Your task to perform on an android device: toggle show notifications on the lock screen Image 0: 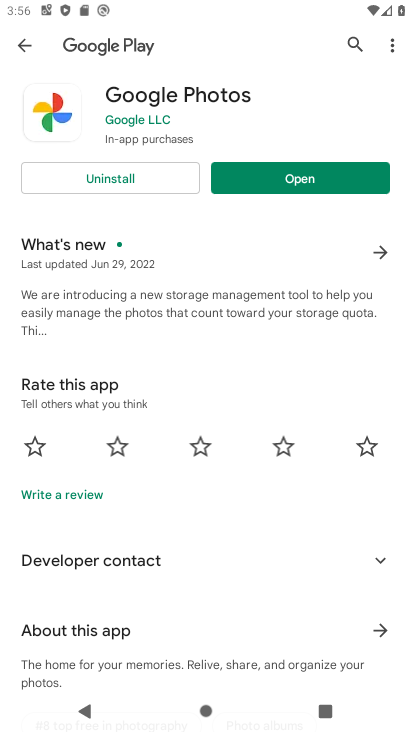
Step 0: press home button
Your task to perform on an android device: toggle show notifications on the lock screen Image 1: 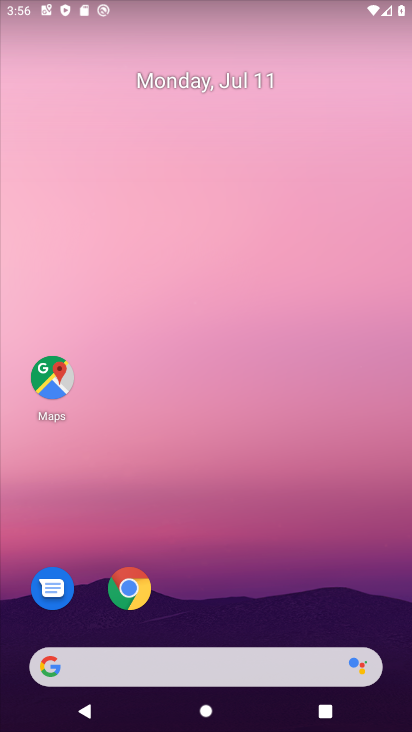
Step 1: drag from (261, 547) to (217, 151)
Your task to perform on an android device: toggle show notifications on the lock screen Image 2: 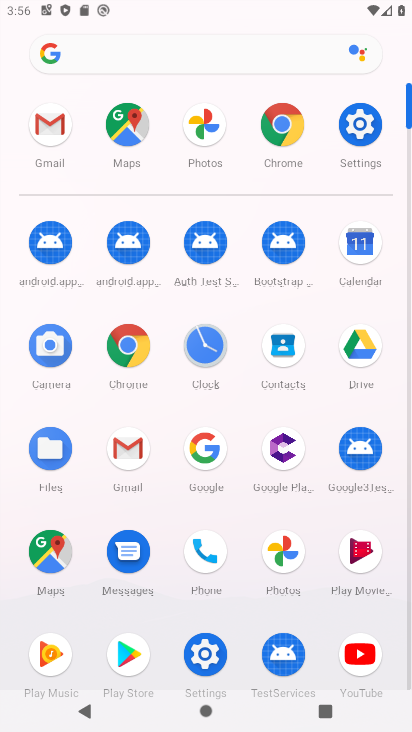
Step 2: click (349, 129)
Your task to perform on an android device: toggle show notifications on the lock screen Image 3: 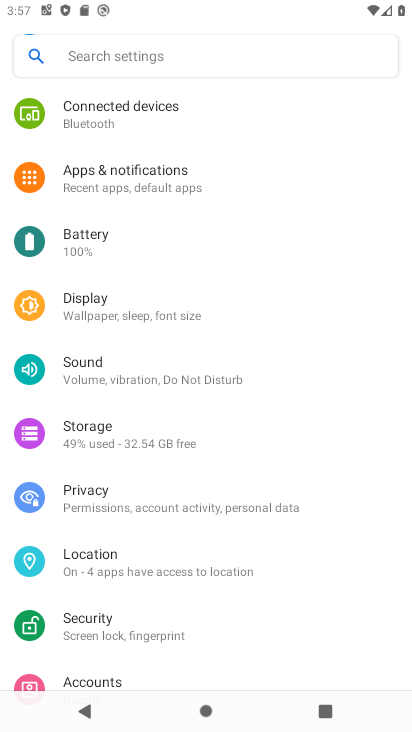
Step 3: click (140, 172)
Your task to perform on an android device: toggle show notifications on the lock screen Image 4: 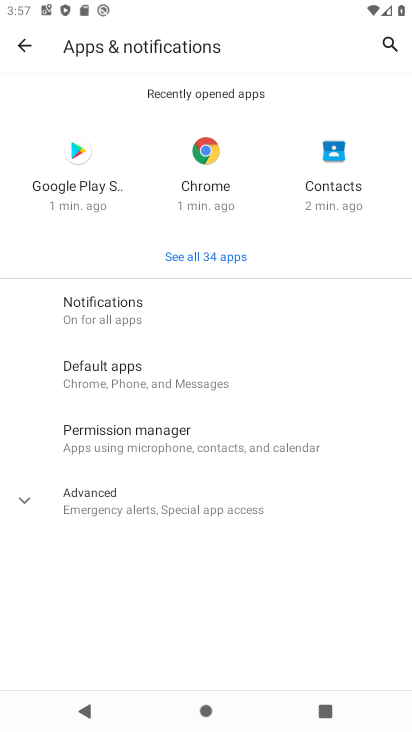
Step 4: click (113, 307)
Your task to perform on an android device: toggle show notifications on the lock screen Image 5: 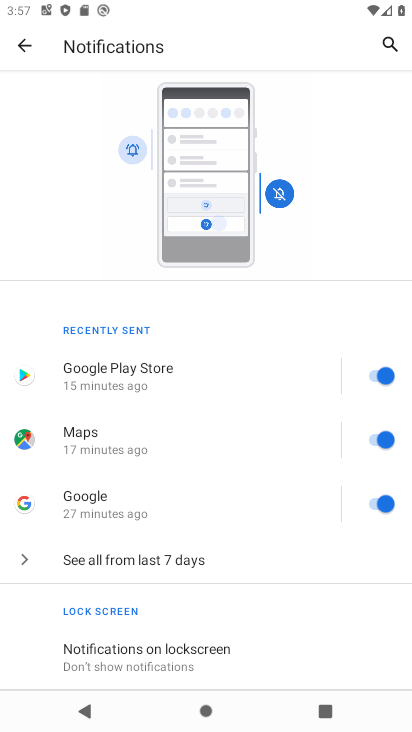
Step 5: click (94, 659)
Your task to perform on an android device: toggle show notifications on the lock screen Image 6: 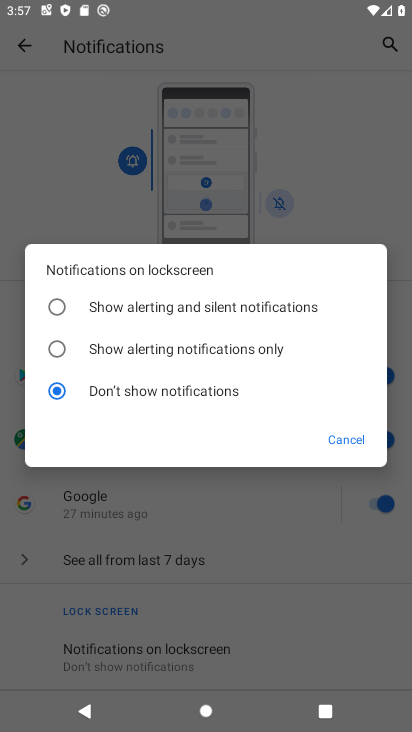
Step 6: click (120, 307)
Your task to perform on an android device: toggle show notifications on the lock screen Image 7: 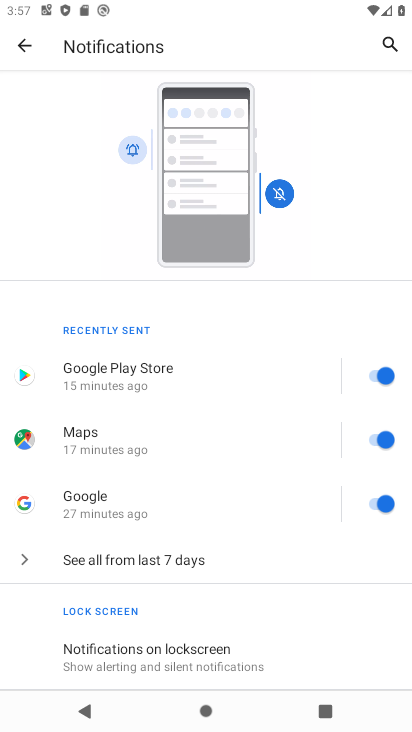
Step 7: task complete